Your task to perform on an android device: toggle notification dots Image 0: 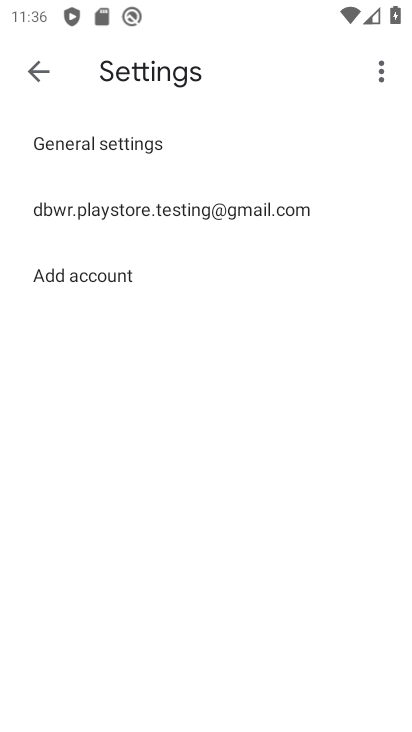
Step 0: press home button
Your task to perform on an android device: toggle notification dots Image 1: 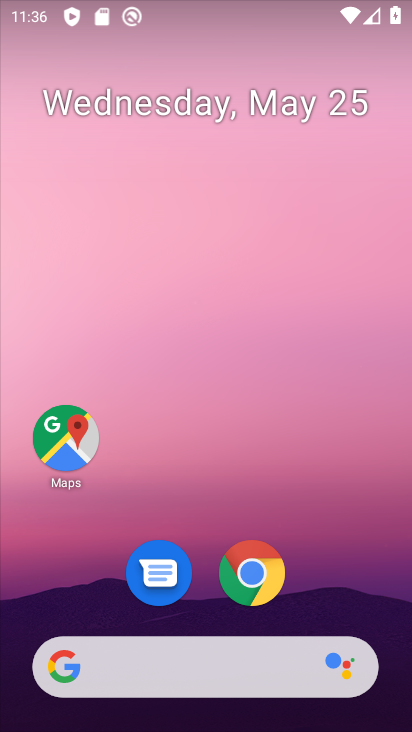
Step 1: drag from (220, 630) to (175, 2)
Your task to perform on an android device: toggle notification dots Image 2: 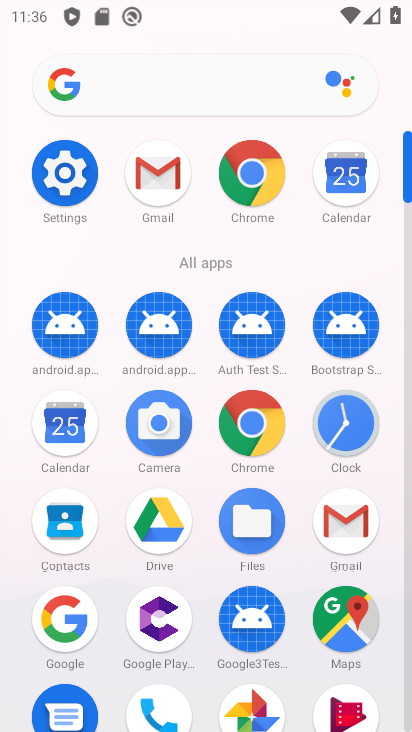
Step 2: click (39, 147)
Your task to perform on an android device: toggle notification dots Image 3: 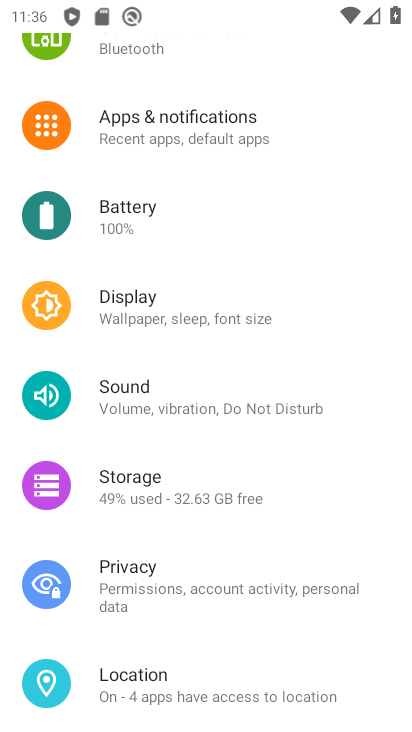
Step 3: click (181, 133)
Your task to perform on an android device: toggle notification dots Image 4: 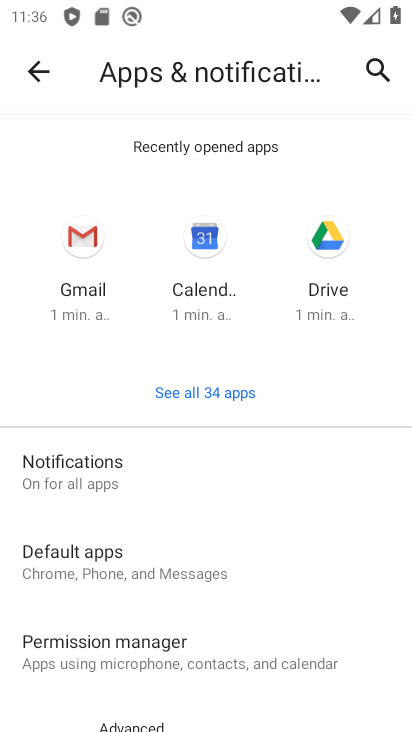
Step 4: drag from (147, 613) to (165, 201)
Your task to perform on an android device: toggle notification dots Image 5: 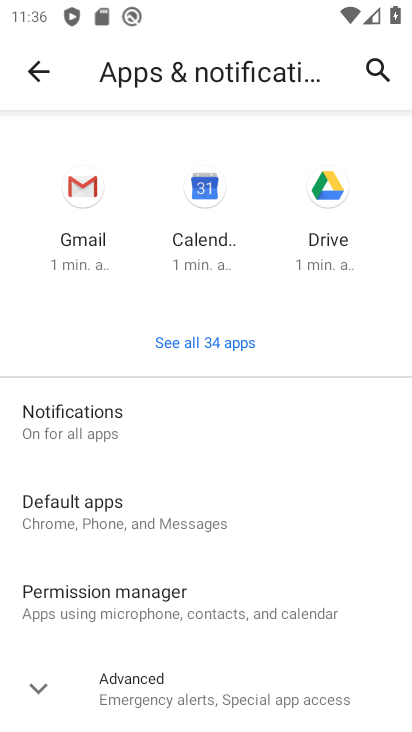
Step 5: click (204, 691)
Your task to perform on an android device: toggle notification dots Image 6: 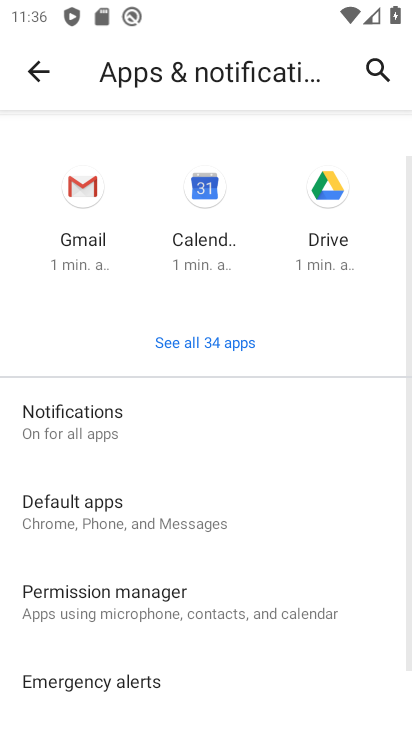
Step 6: drag from (147, 669) to (144, 163)
Your task to perform on an android device: toggle notification dots Image 7: 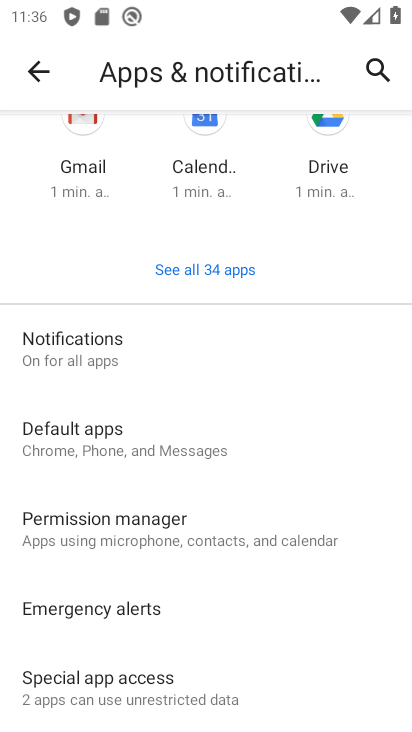
Step 7: click (105, 348)
Your task to perform on an android device: toggle notification dots Image 8: 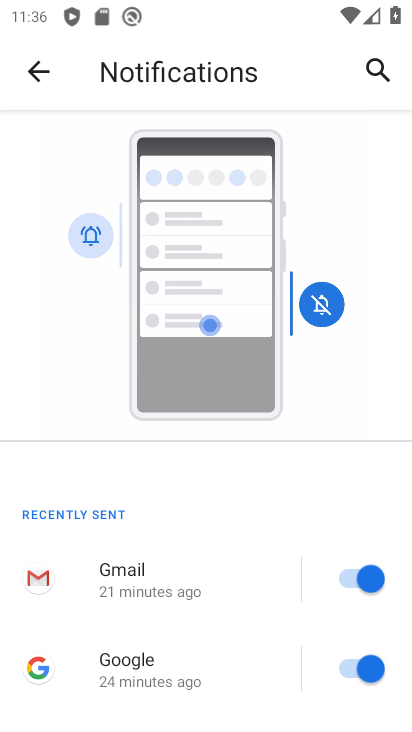
Step 8: drag from (263, 614) to (286, 125)
Your task to perform on an android device: toggle notification dots Image 9: 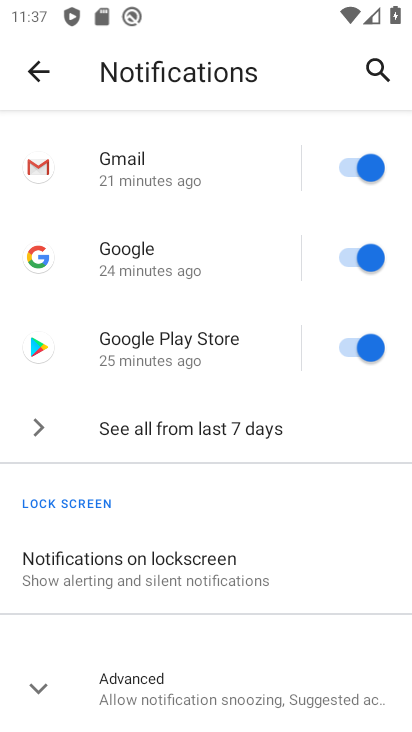
Step 9: drag from (194, 617) to (188, 21)
Your task to perform on an android device: toggle notification dots Image 10: 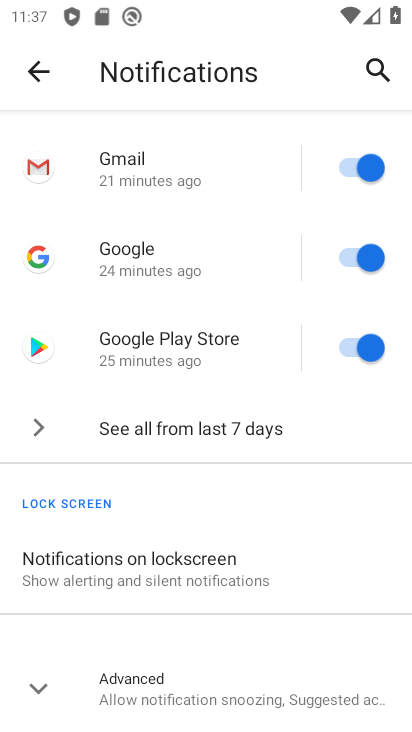
Step 10: click (166, 686)
Your task to perform on an android device: toggle notification dots Image 11: 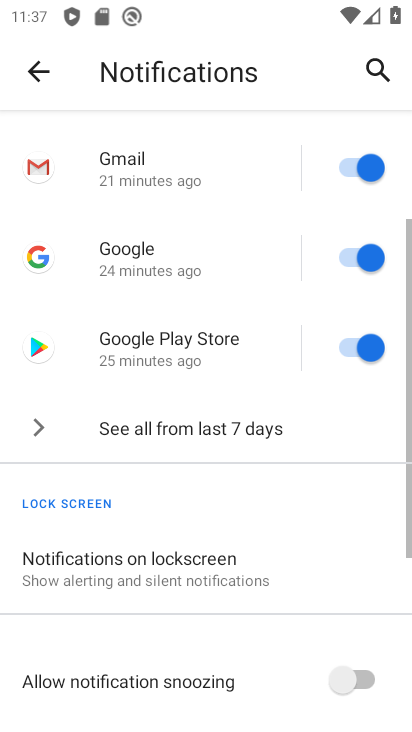
Step 11: drag from (207, 673) to (279, 66)
Your task to perform on an android device: toggle notification dots Image 12: 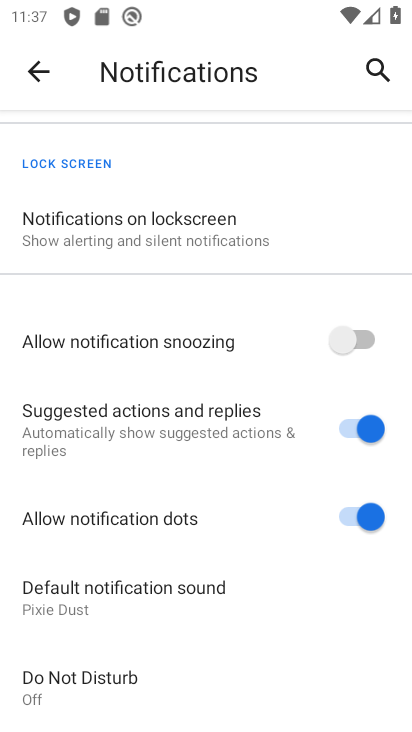
Step 12: click (363, 518)
Your task to perform on an android device: toggle notification dots Image 13: 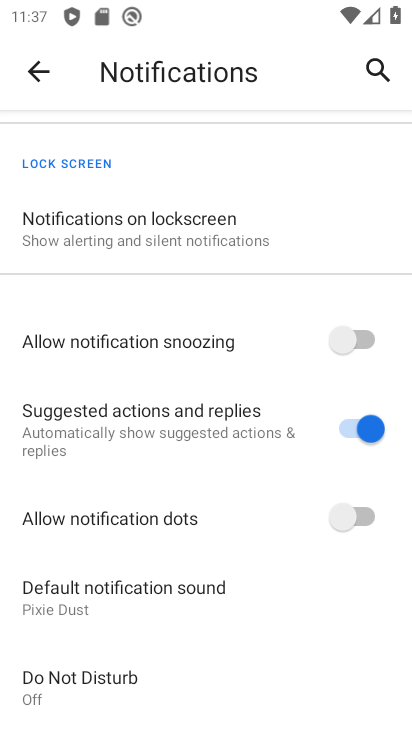
Step 13: task complete